Your task to perform on an android device: Open the map Image 0: 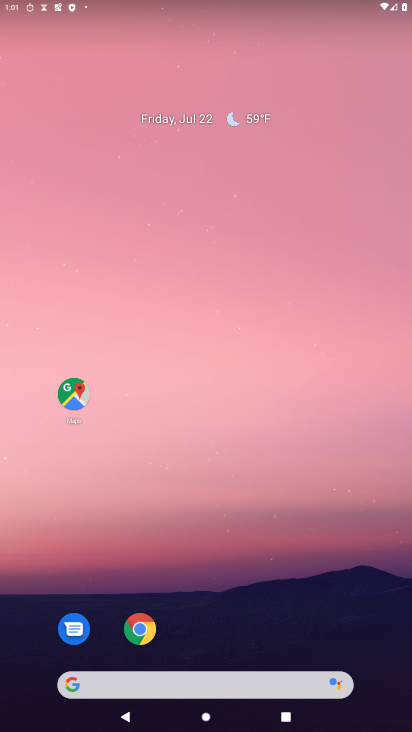
Step 0: drag from (260, 674) to (180, 4)
Your task to perform on an android device: Open the map Image 1: 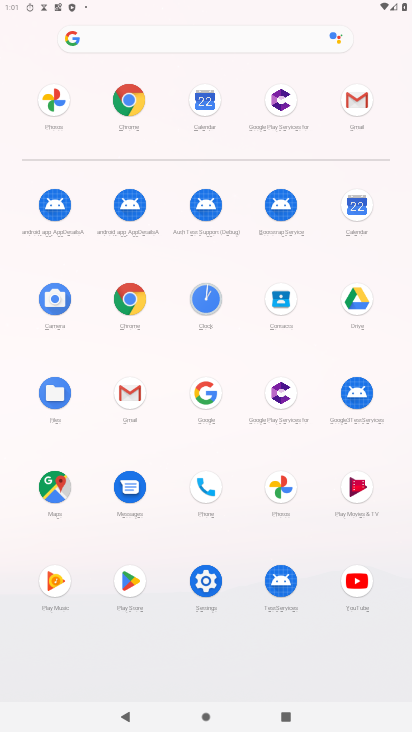
Step 1: click (59, 485)
Your task to perform on an android device: Open the map Image 2: 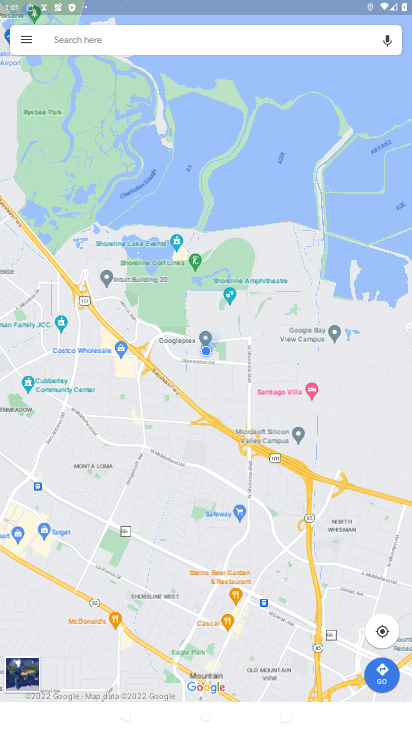
Step 2: task complete